Your task to perform on an android device: Open calendar and show me the fourth week of next month Image 0: 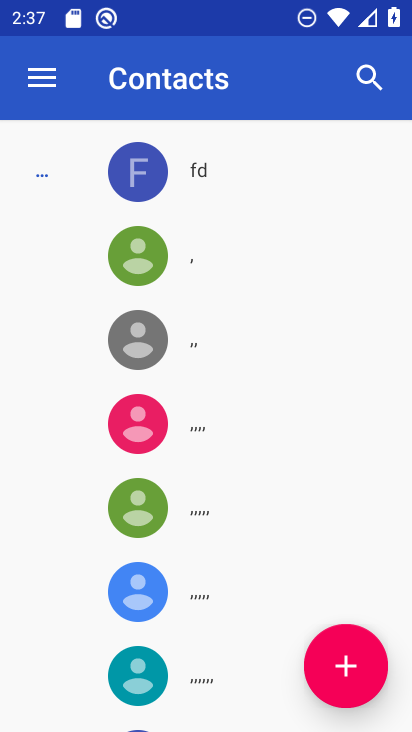
Step 0: press home button
Your task to perform on an android device: Open calendar and show me the fourth week of next month Image 1: 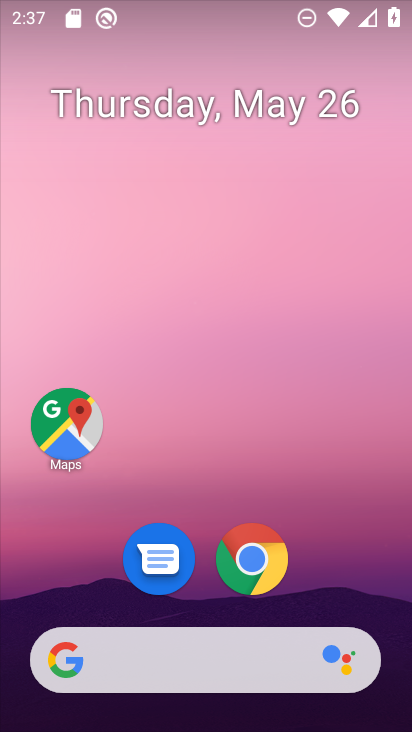
Step 1: drag from (222, 682) to (402, 83)
Your task to perform on an android device: Open calendar and show me the fourth week of next month Image 2: 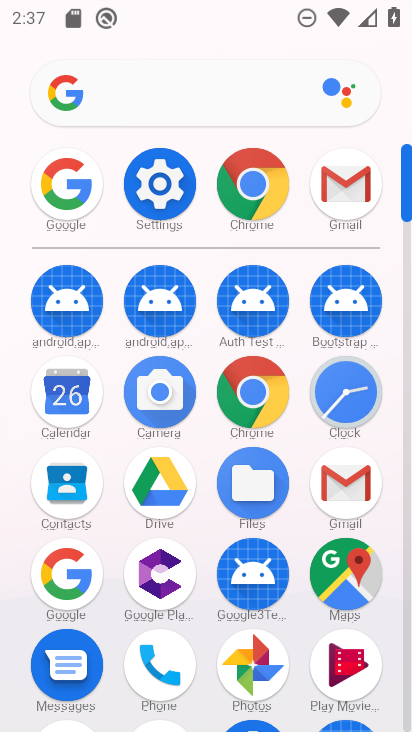
Step 2: click (70, 406)
Your task to perform on an android device: Open calendar and show me the fourth week of next month Image 3: 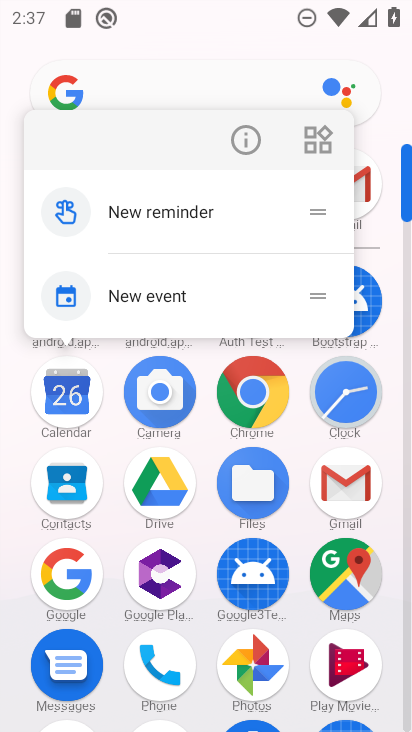
Step 3: click (77, 400)
Your task to perform on an android device: Open calendar and show me the fourth week of next month Image 4: 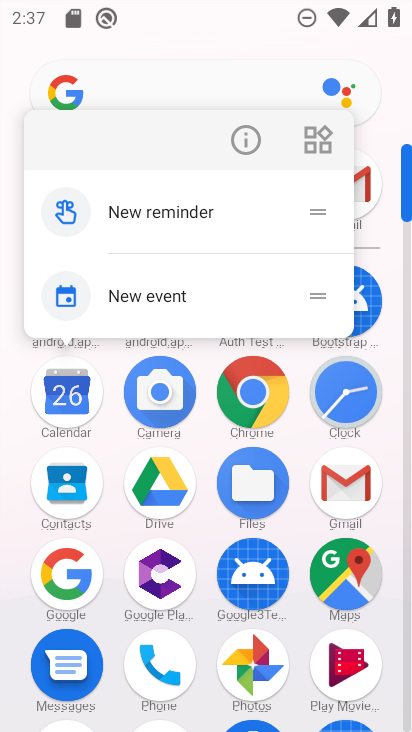
Step 4: click (71, 404)
Your task to perform on an android device: Open calendar and show me the fourth week of next month Image 5: 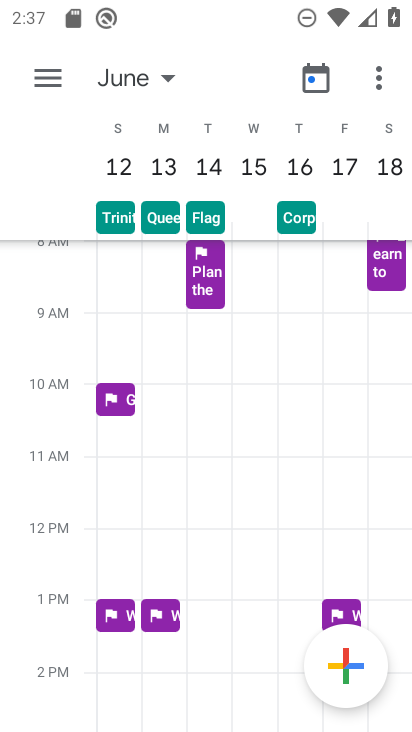
Step 5: click (130, 79)
Your task to perform on an android device: Open calendar and show me the fourth week of next month Image 6: 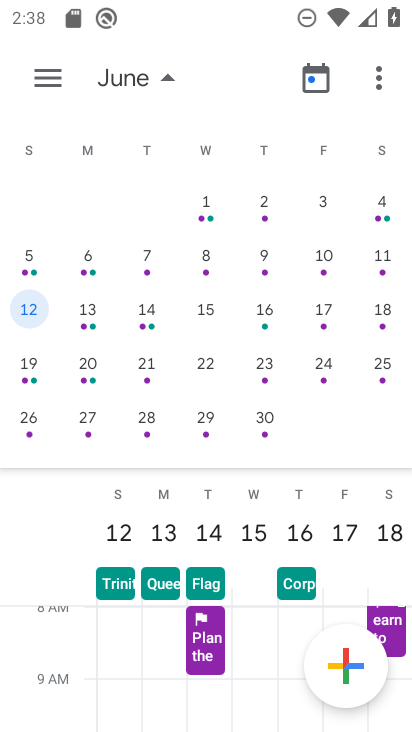
Step 6: click (42, 365)
Your task to perform on an android device: Open calendar and show me the fourth week of next month Image 7: 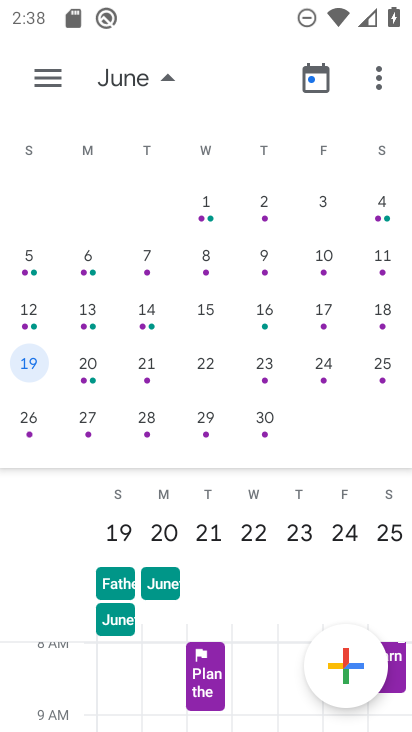
Step 7: click (43, 73)
Your task to perform on an android device: Open calendar and show me the fourth week of next month Image 8: 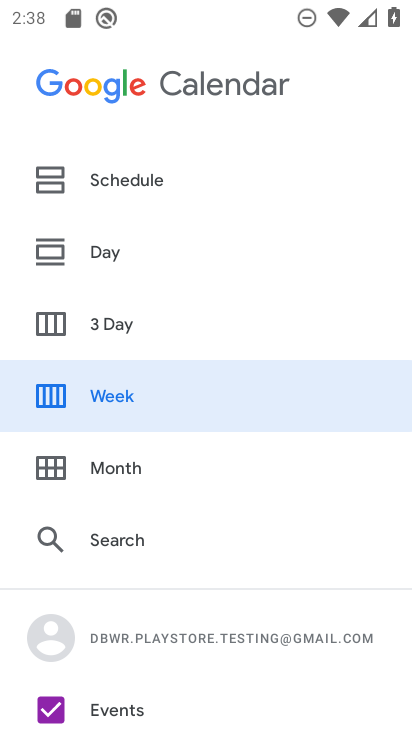
Step 8: click (124, 387)
Your task to perform on an android device: Open calendar and show me the fourth week of next month Image 9: 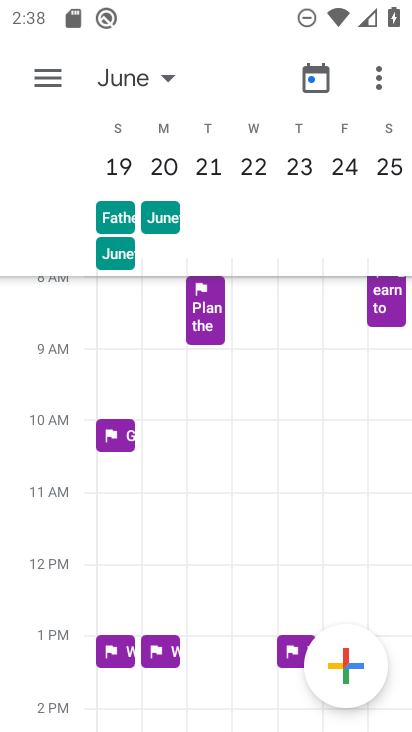
Step 9: task complete